Your task to perform on an android device: Open sound settings Image 0: 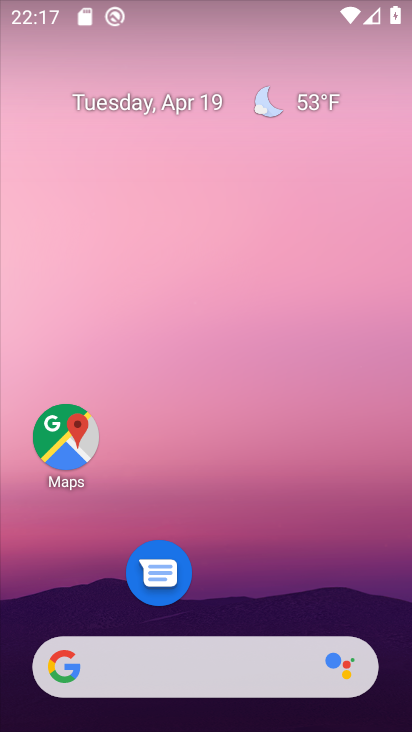
Step 0: drag from (254, 378) to (278, 51)
Your task to perform on an android device: Open sound settings Image 1: 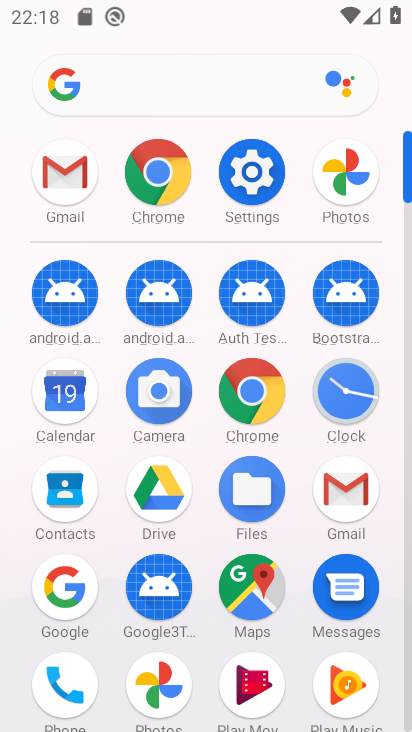
Step 1: click (249, 162)
Your task to perform on an android device: Open sound settings Image 2: 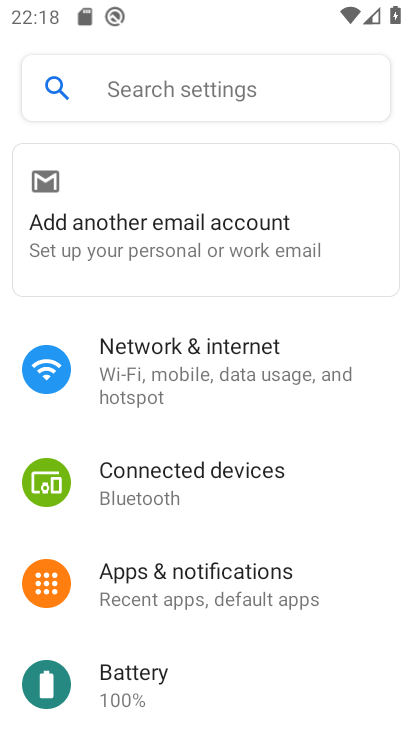
Step 2: drag from (210, 654) to (239, 160)
Your task to perform on an android device: Open sound settings Image 3: 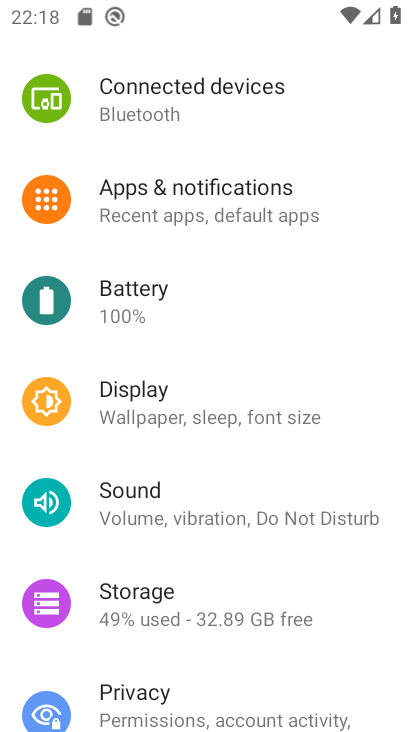
Step 3: click (175, 488)
Your task to perform on an android device: Open sound settings Image 4: 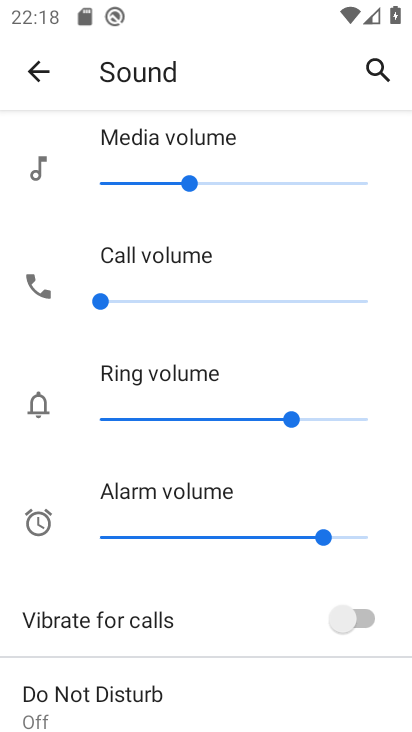
Step 4: task complete